Your task to perform on an android device: open app "Messenger Lite" Image 0: 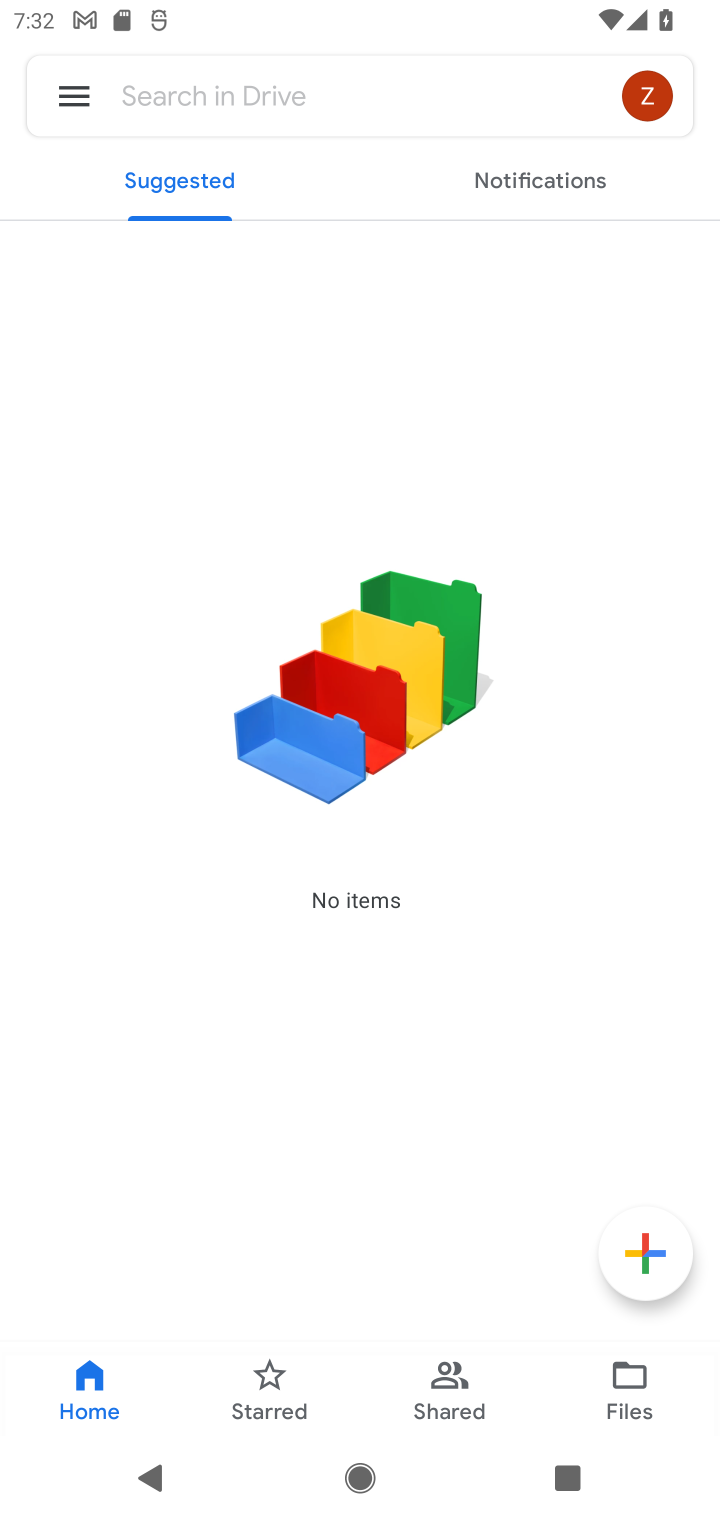
Step 0: press home button
Your task to perform on an android device: open app "Messenger Lite" Image 1: 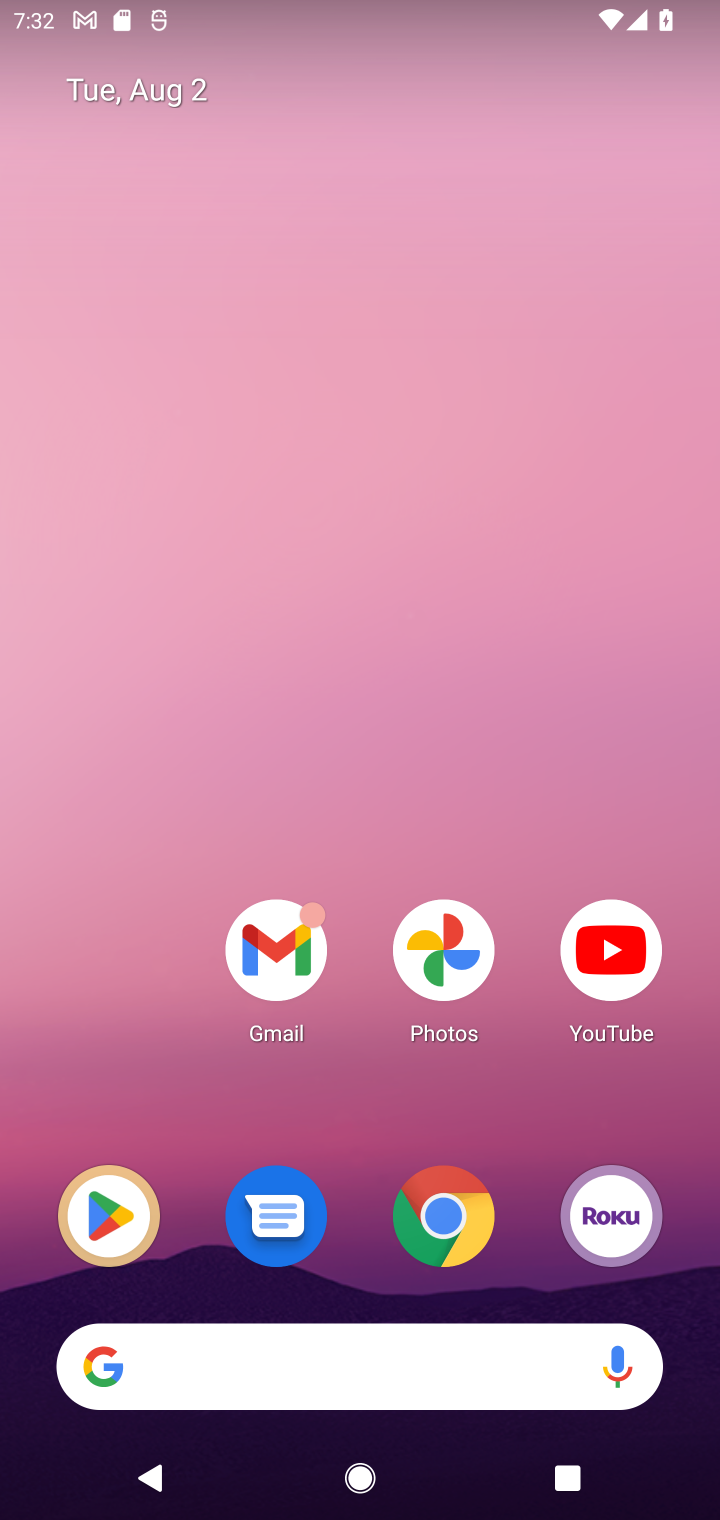
Step 1: click (115, 1209)
Your task to perform on an android device: open app "Messenger Lite" Image 2: 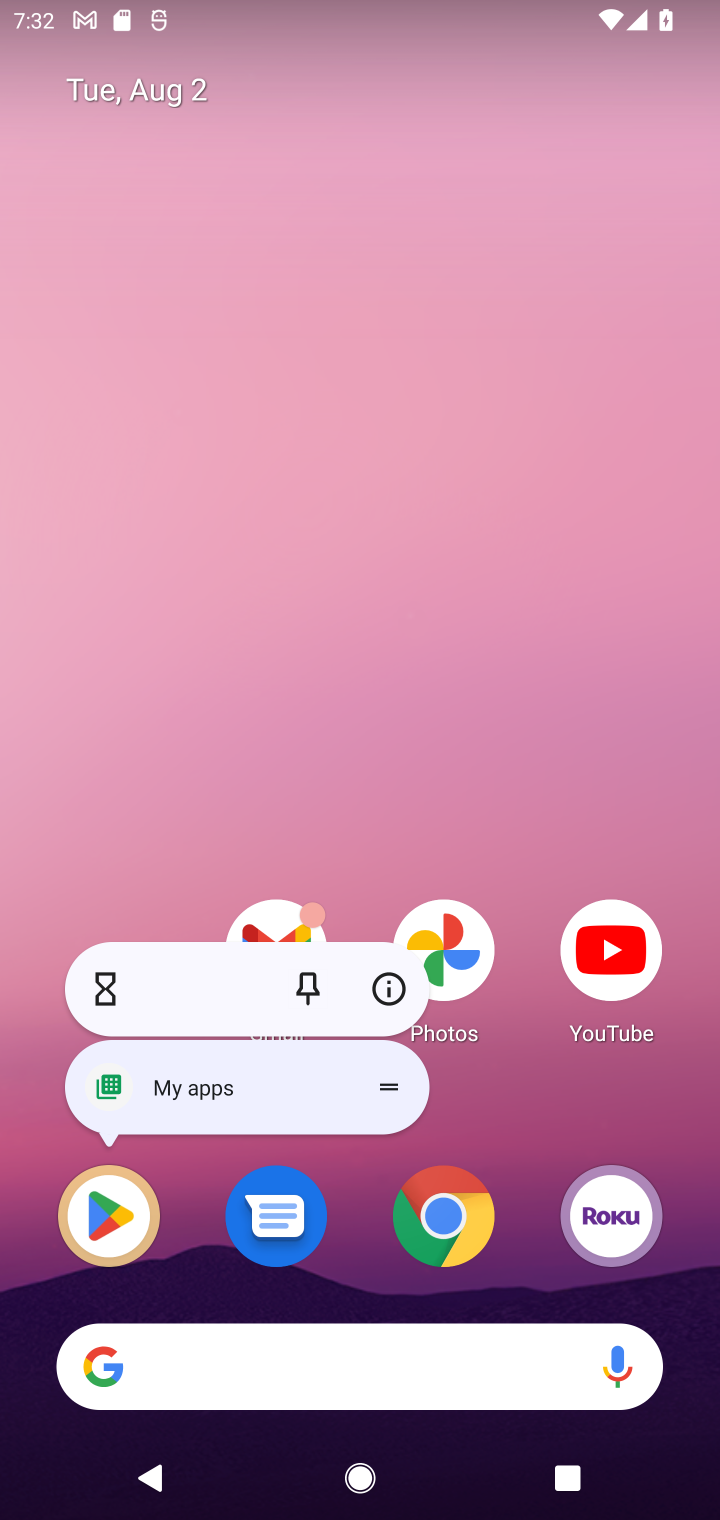
Step 2: click (99, 1220)
Your task to perform on an android device: open app "Messenger Lite" Image 3: 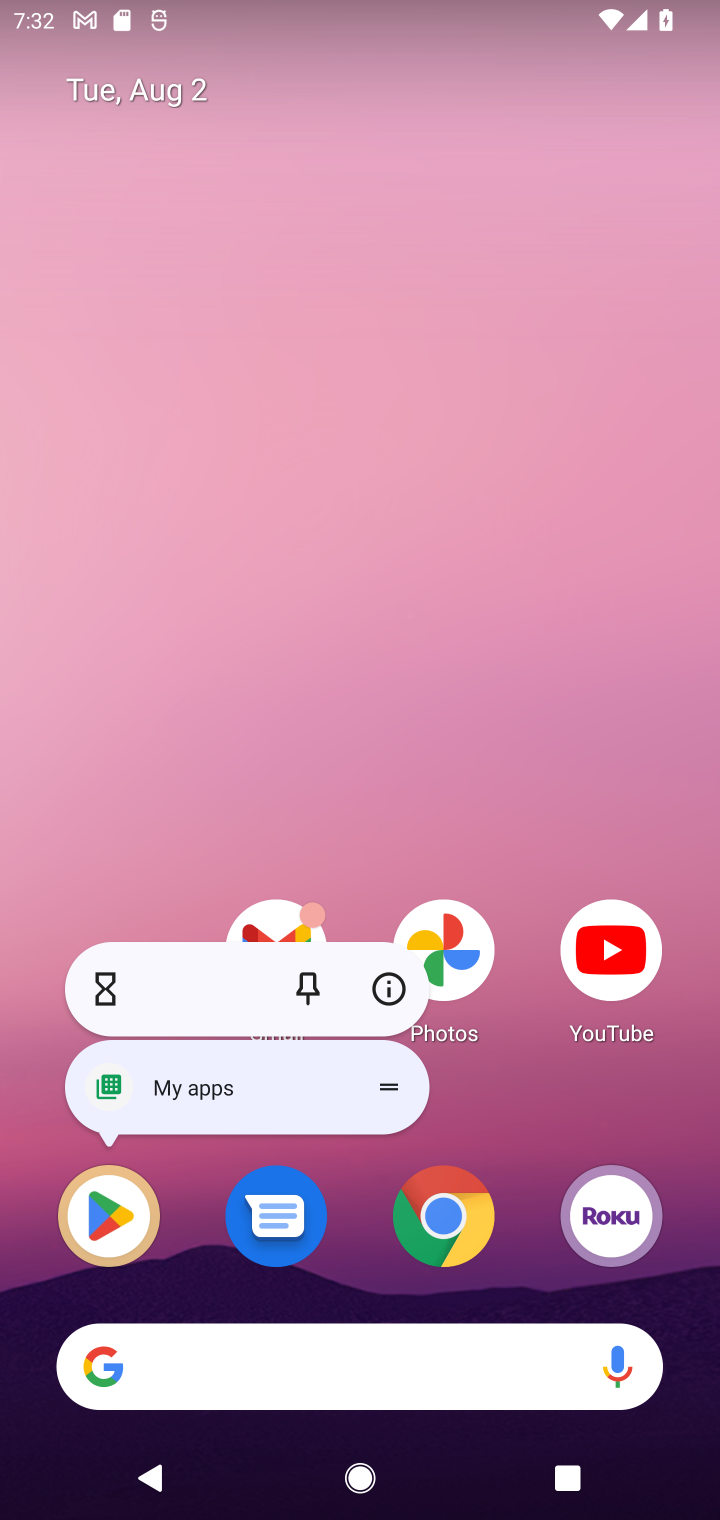
Step 3: click (99, 1222)
Your task to perform on an android device: open app "Messenger Lite" Image 4: 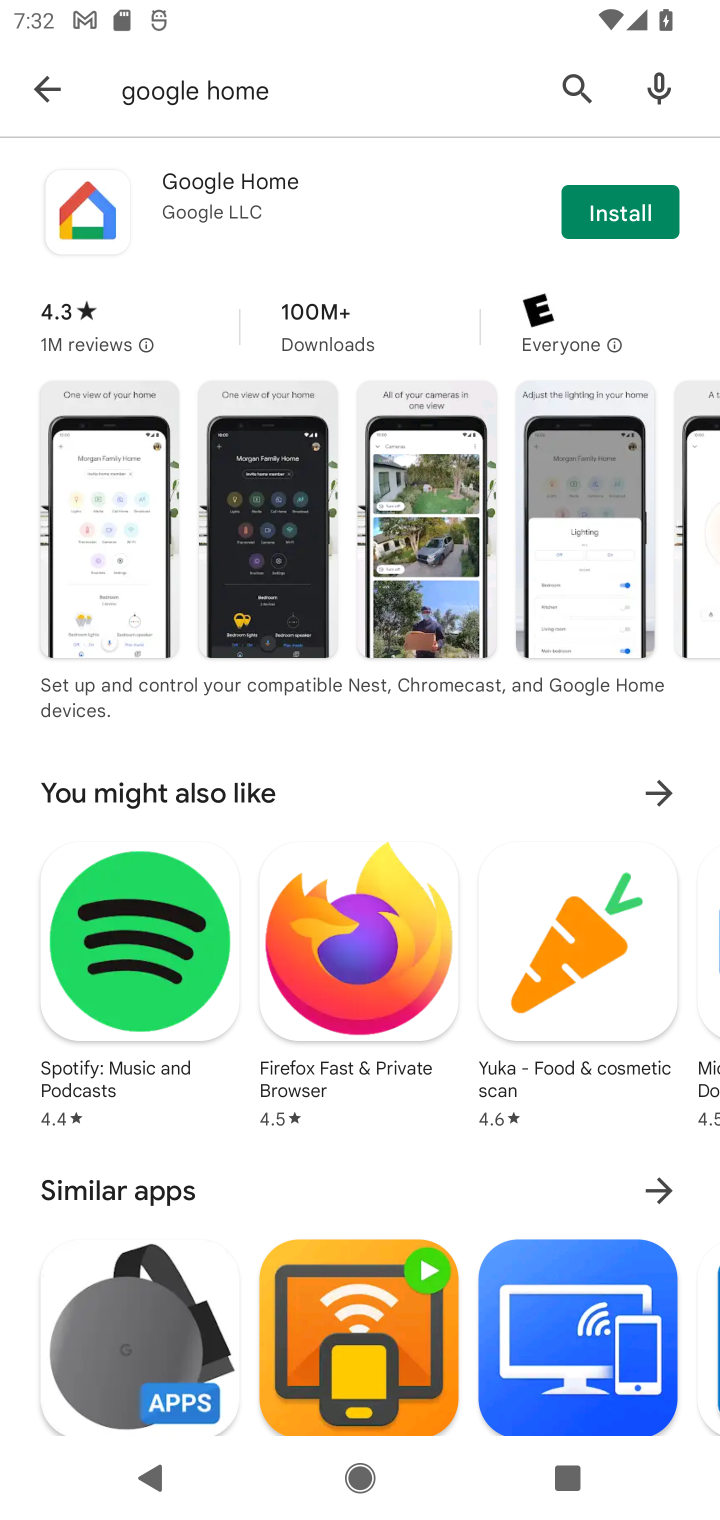
Step 4: click (576, 85)
Your task to perform on an android device: open app "Messenger Lite" Image 5: 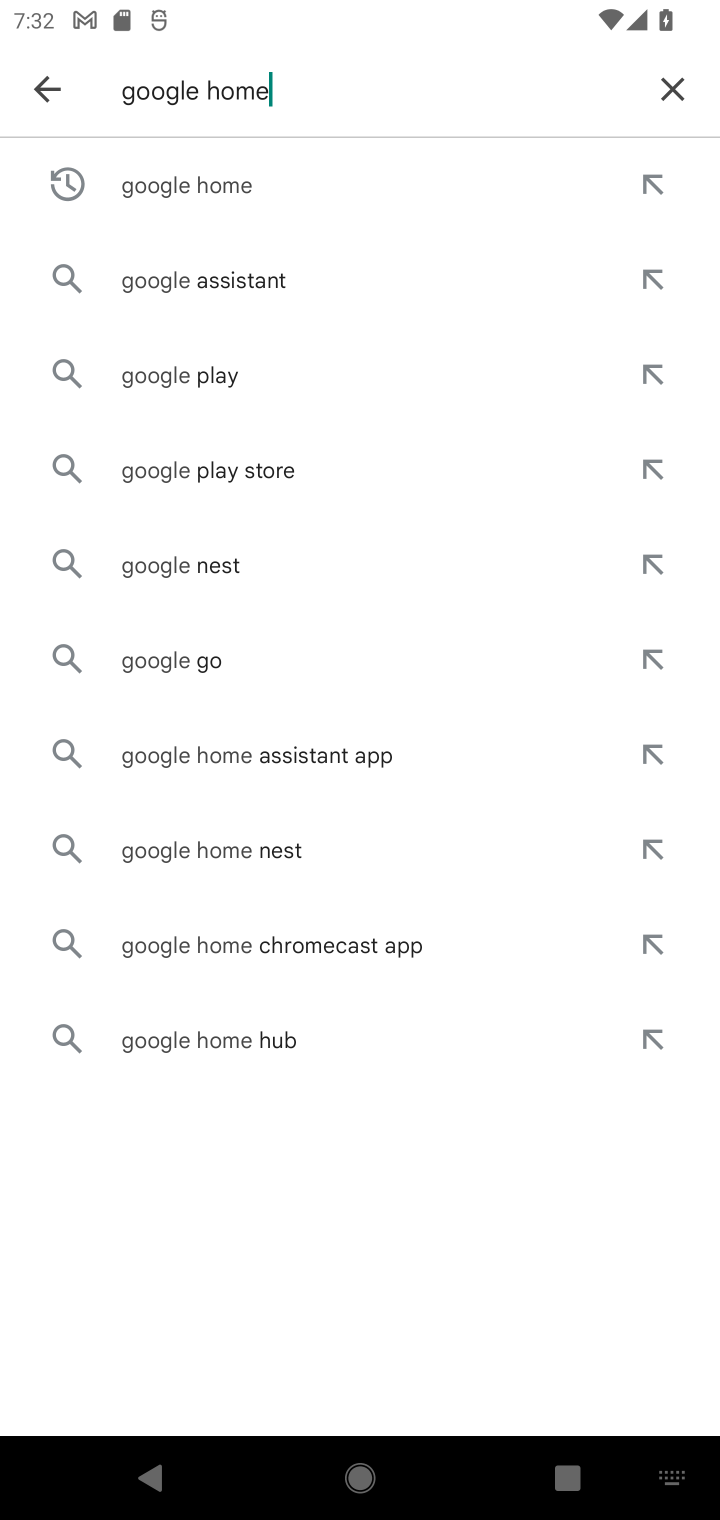
Step 5: click (671, 90)
Your task to perform on an android device: open app "Messenger Lite" Image 6: 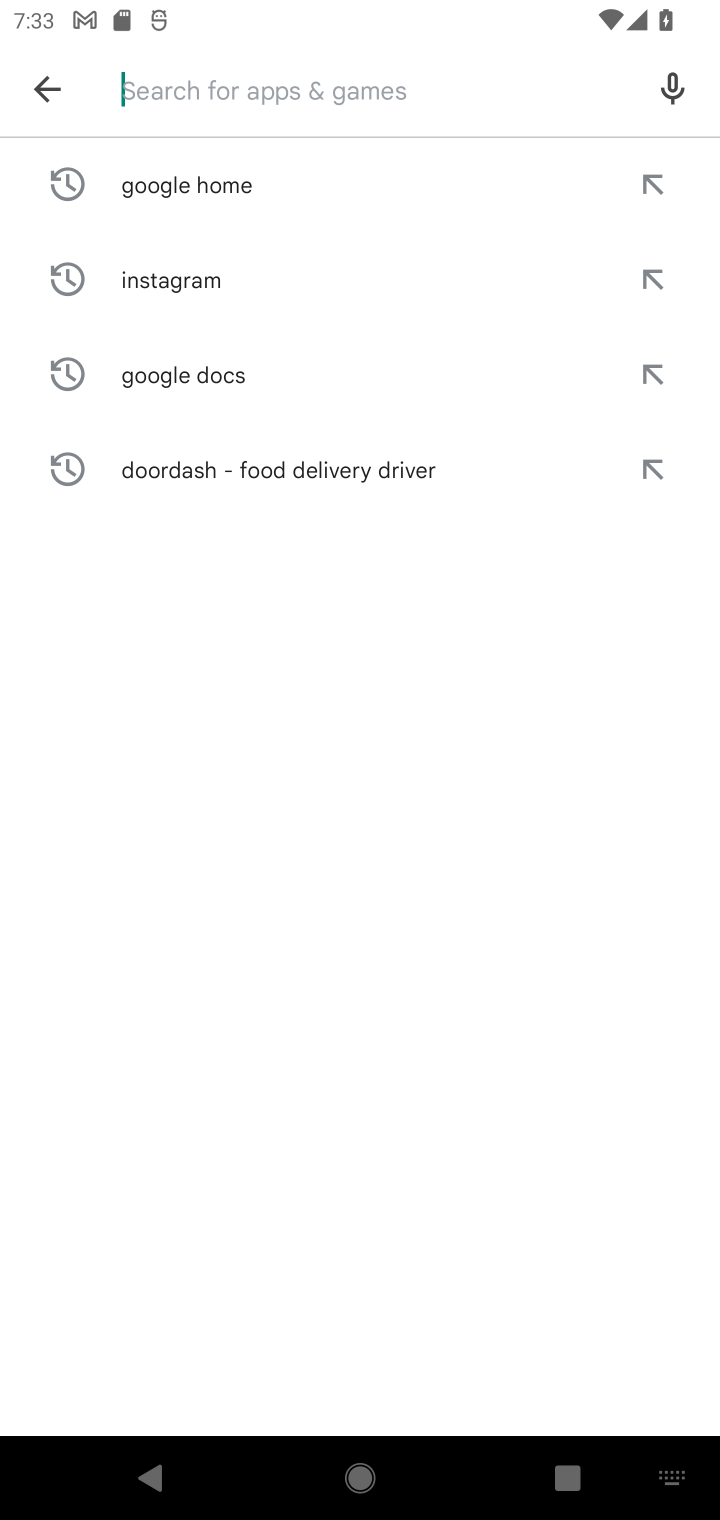
Step 6: type "Messenger Lite"
Your task to perform on an android device: open app "Messenger Lite" Image 7: 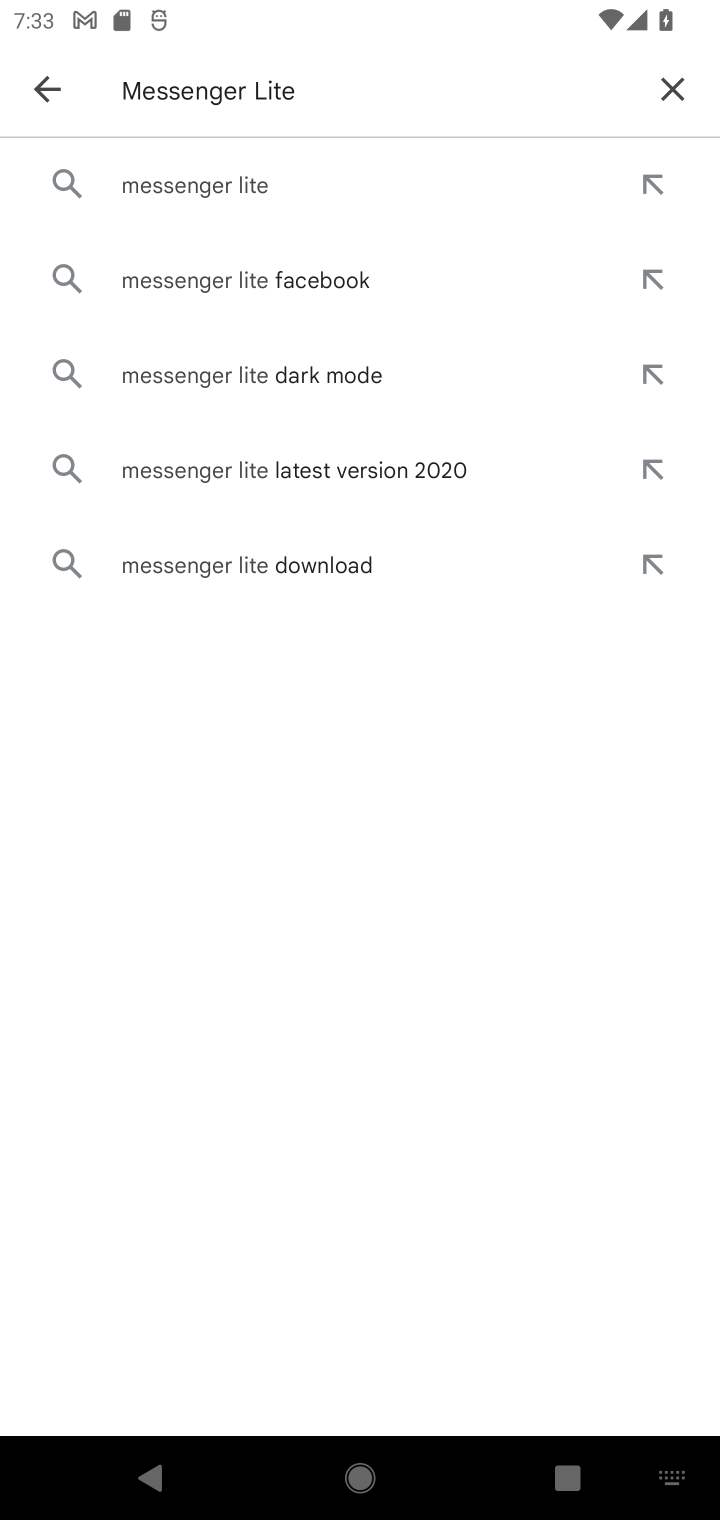
Step 7: click (224, 196)
Your task to perform on an android device: open app "Messenger Lite" Image 8: 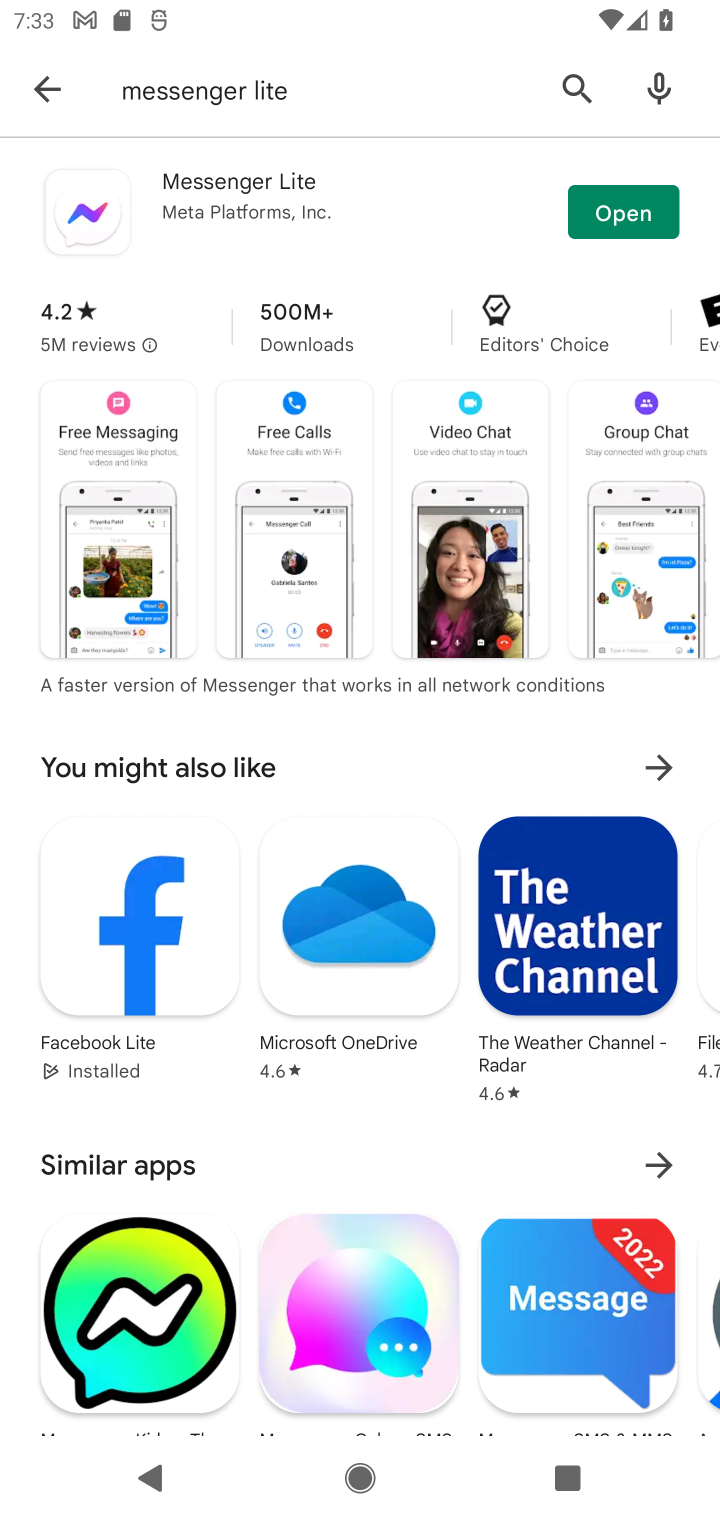
Step 8: click (628, 223)
Your task to perform on an android device: open app "Messenger Lite" Image 9: 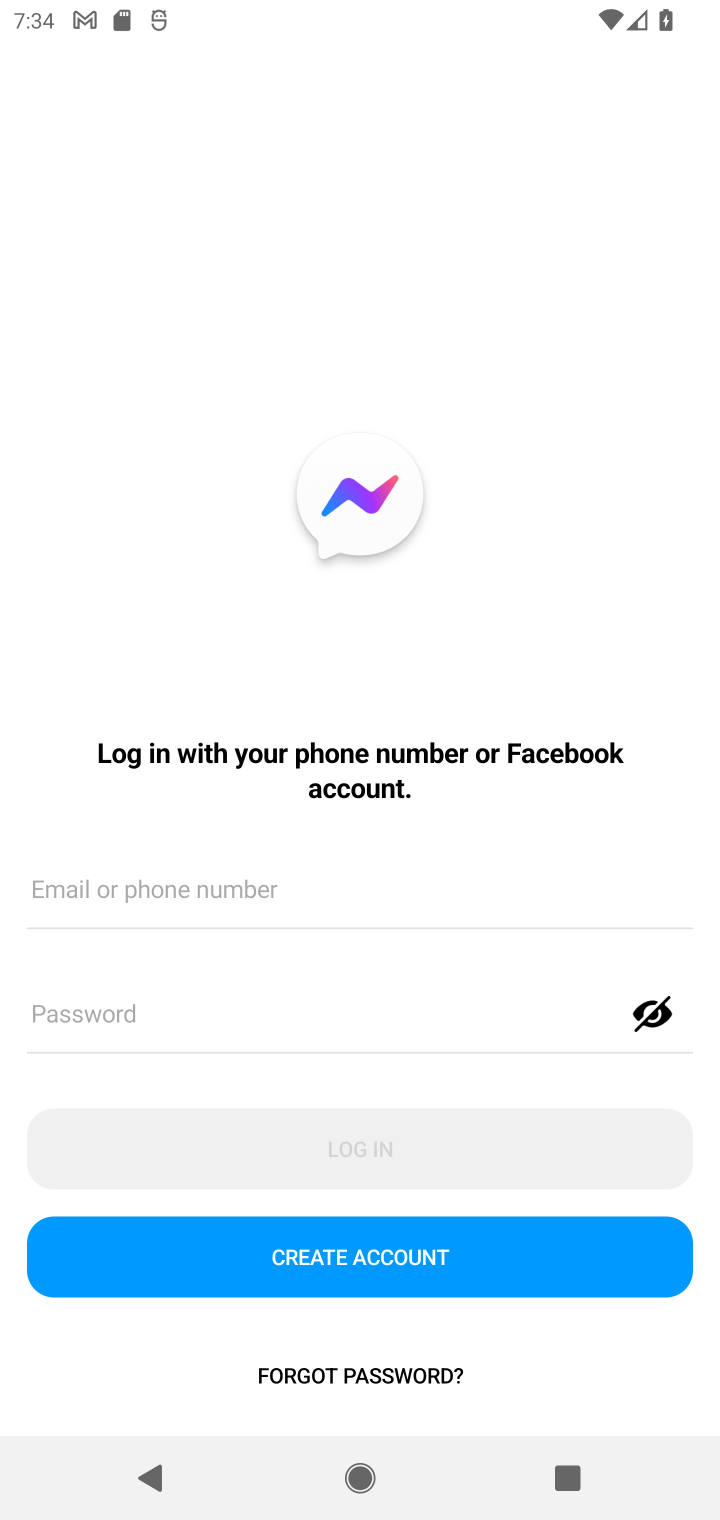
Step 9: task complete